Your task to perform on an android device: turn on wifi Image 0: 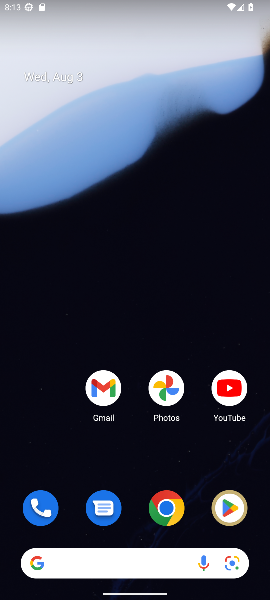
Step 0: drag from (146, 539) to (202, 3)
Your task to perform on an android device: turn on wifi Image 1: 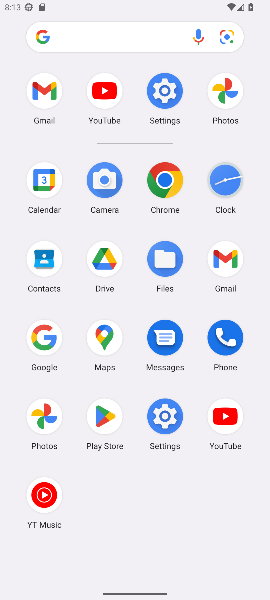
Step 1: click (167, 425)
Your task to perform on an android device: turn on wifi Image 2: 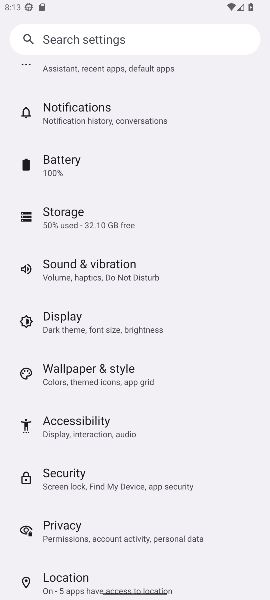
Step 2: drag from (99, 99) to (117, 477)
Your task to perform on an android device: turn on wifi Image 3: 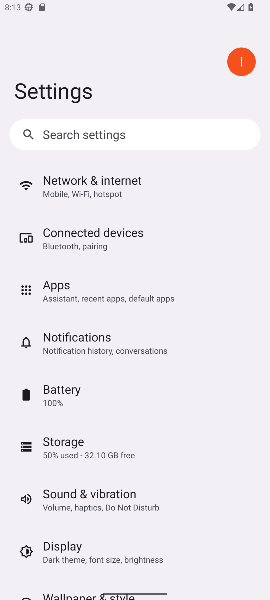
Step 3: click (57, 200)
Your task to perform on an android device: turn on wifi Image 4: 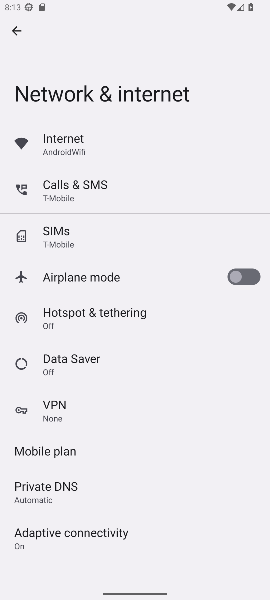
Step 4: click (8, 29)
Your task to perform on an android device: turn on wifi Image 5: 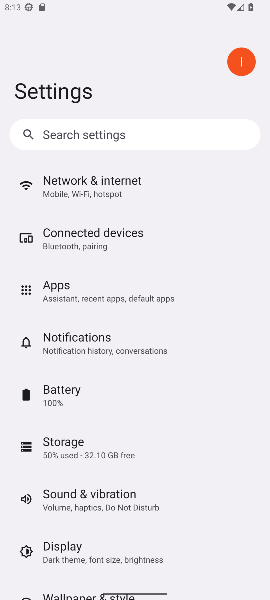
Step 5: click (87, 185)
Your task to perform on an android device: turn on wifi Image 6: 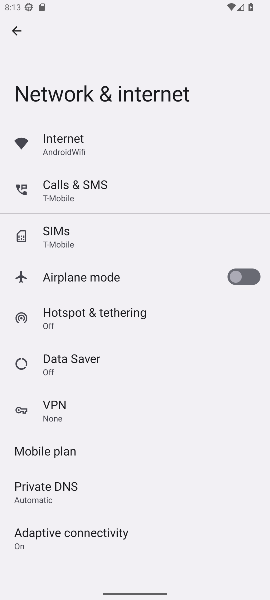
Step 6: drag from (76, 495) to (39, 57)
Your task to perform on an android device: turn on wifi Image 7: 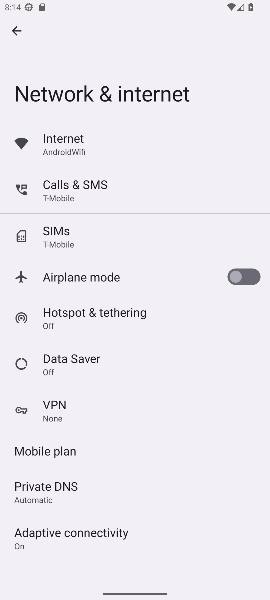
Step 7: click (51, 146)
Your task to perform on an android device: turn on wifi Image 8: 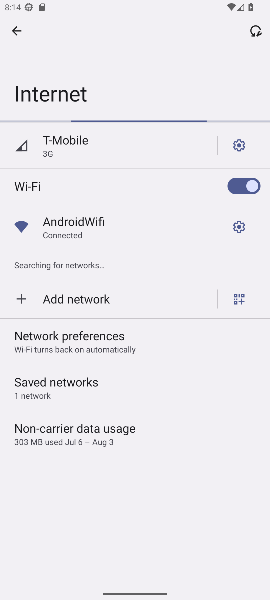
Step 8: task complete